Your task to perform on an android device: What is the news today? Image 0: 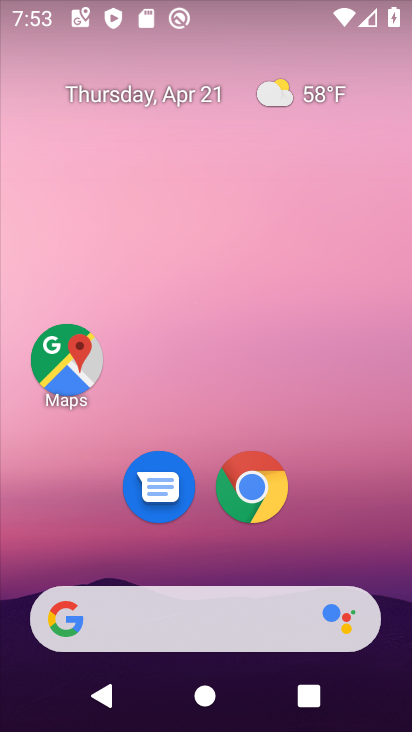
Step 0: drag from (333, 519) to (214, 21)
Your task to perform on an android device: What is the news today? Image 1: 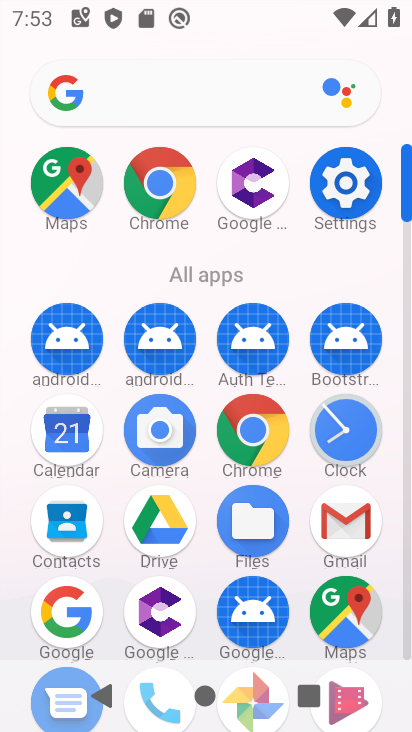
Step 1: click (182, 101)
Your task to perform on an android device: What is the news today? Image 2: 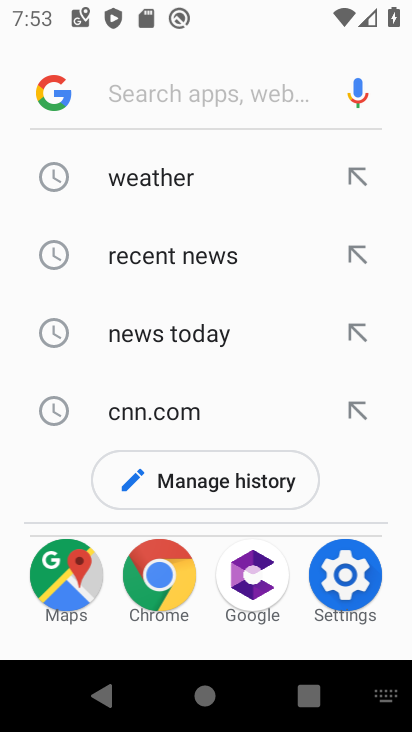
Step 2: type "What is the news today?"
Your task to perform on an android device: What is the news today? Image 3: 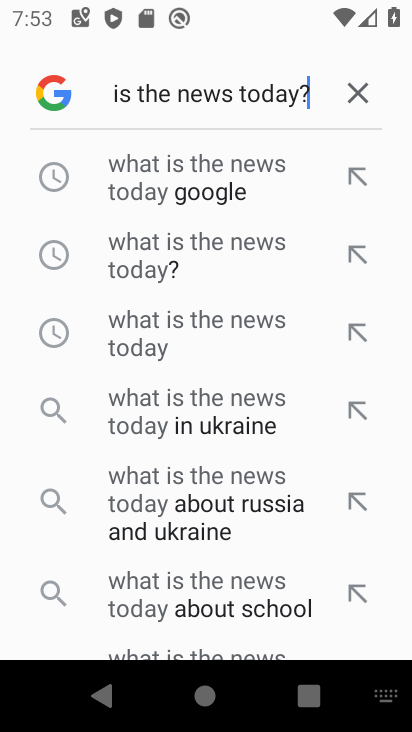
Step 3: type ""
Your task to perform on an android device: What is the news today? Image 4: 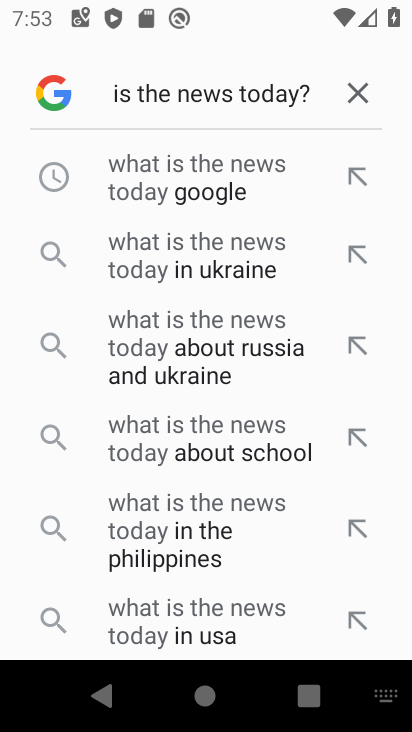
Step 4: click (211, 168)
Your task to perform on an android device: What is the news today? Image 5: 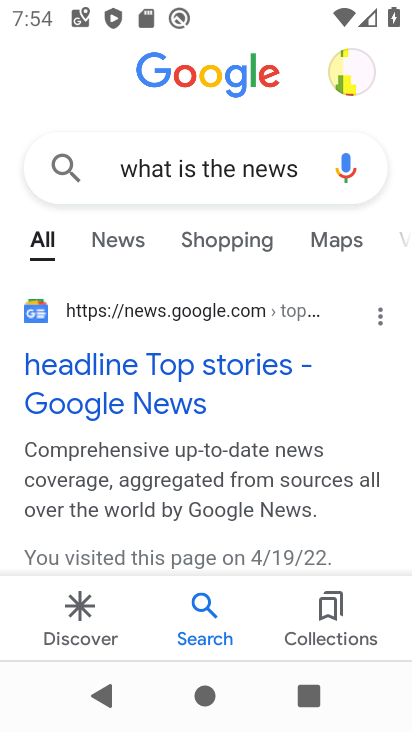
Step 5: click (132, 240)
Your task to perform on an android device: What is the news today? Image 6: 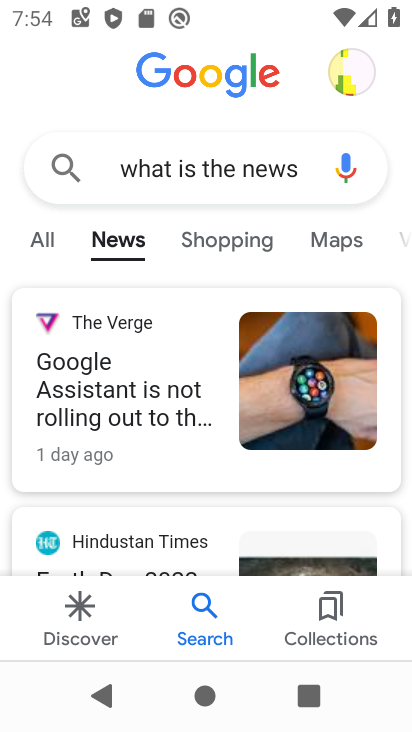
Step 6: task complete